Your task to perform on an android device: Open calendar and show me the first week of next month Image 0: 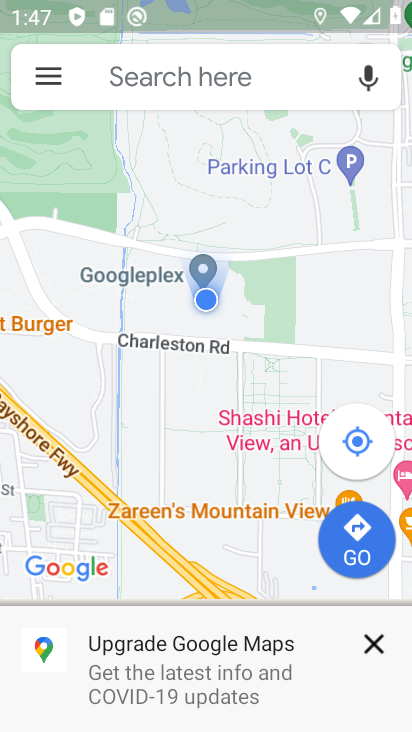
Step 0: press home button
Your task to perform on an android device: Open calendar and show me the first week of next month Image 1: 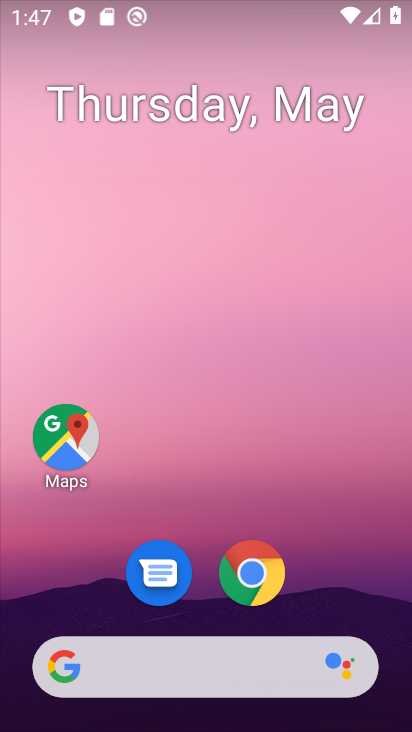
Step 1: drag from (393, 561) to (310, 185)
Your task to perform on an android device: Open calendar and show me the first week of next month Image 2: 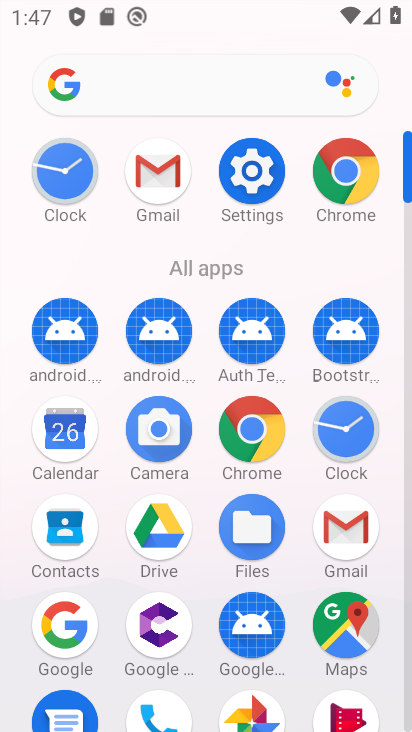
Step 2: click (69, 428)
Your task to perform on an android device: Open calendar and show me the first week of next month Image 3: 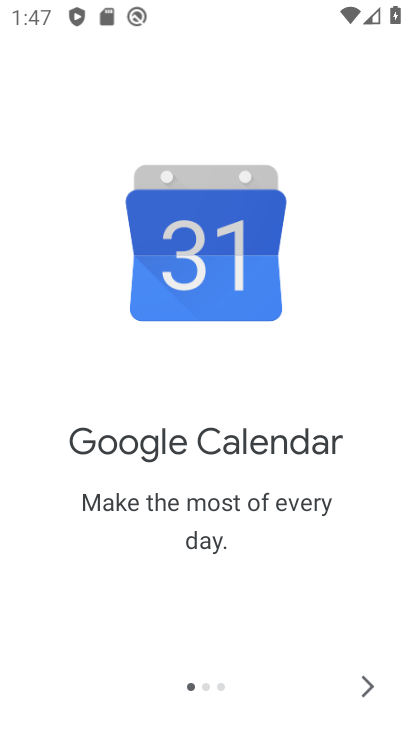
Step 3: click (370, 684)
Your task to perform on an android device: Open calendar and show me the first week of next month Image 4: 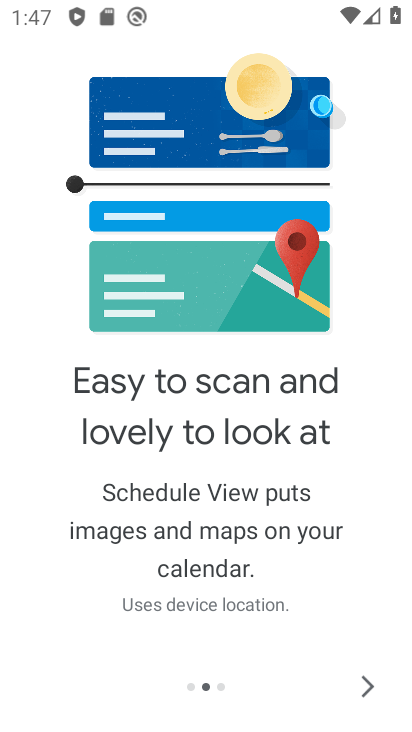
Step 4: click (366, 684)
Your task to perform on an android device: Open calendar and show me the first week of next month Image 5: 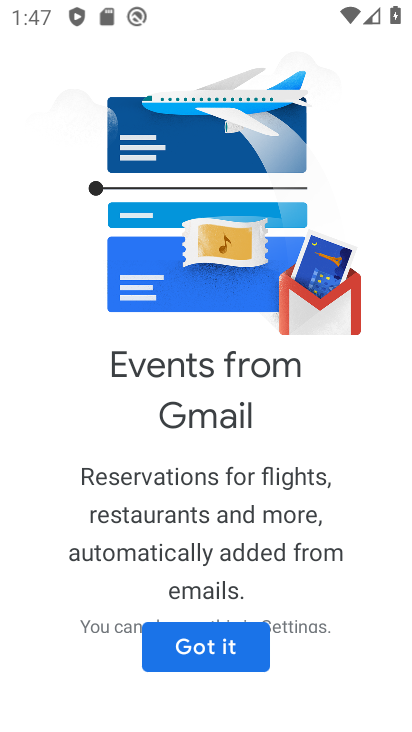
Step 5: click (225, 654)
Your task to perform on an android device: Open calendar and show me the first week of next month Image 6: 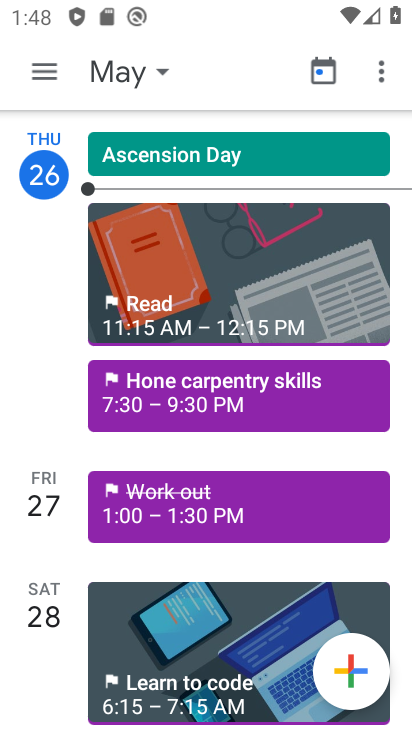
Step 6: click (51, 63)
Your task to perform on an android device: Open calendar and show me the first week of next month Image 7: 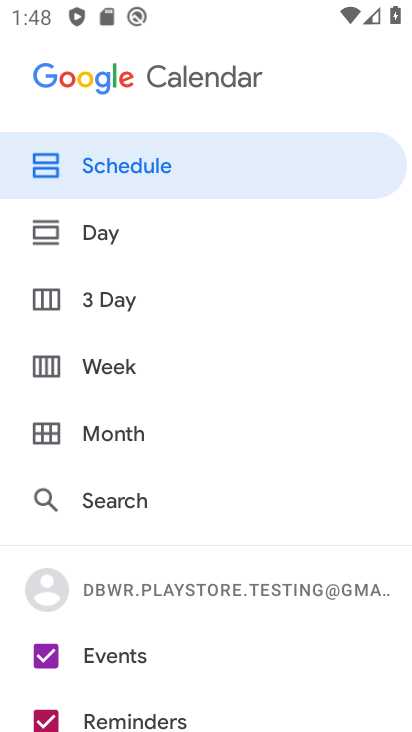
Step 7: click (149, 369)
Your task to perform on an android device: Open calendar and show me the first week of next month Image 8: 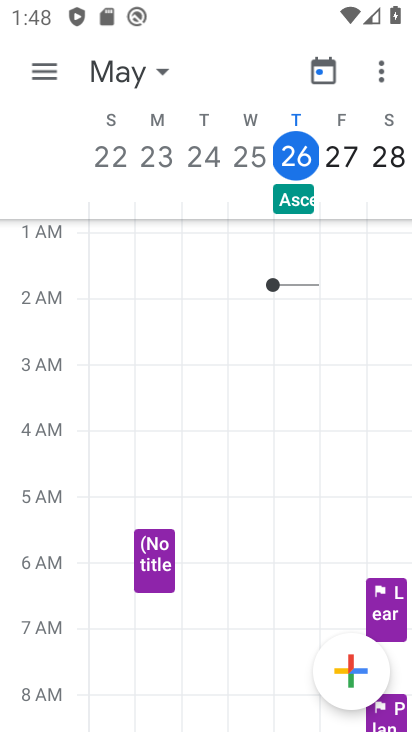
Step 8: click (155, 85)
Your task to perform on an android device: Open calendar and show me the first week of next month Image 9: 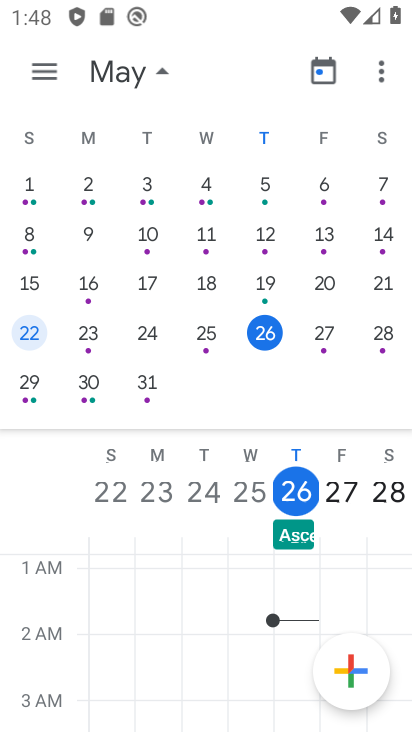
Step 9: task complete